Your task to perform on an android device: When is my next meeting? Image 0: 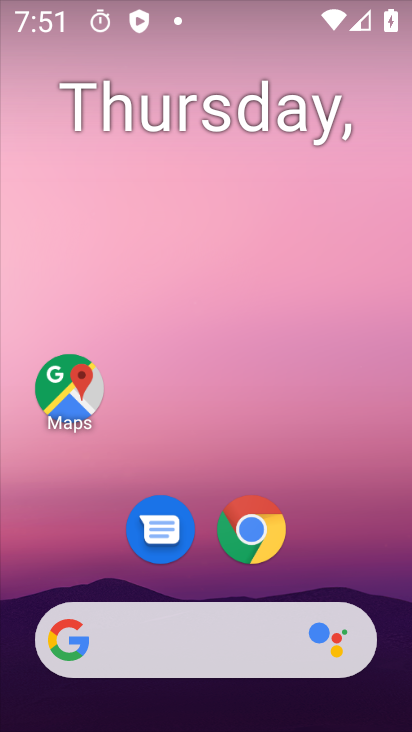
Step 0: drag from (384, 675) to (364, 39)
Your task to perform on an android device: When is my next meeting? Image 1: 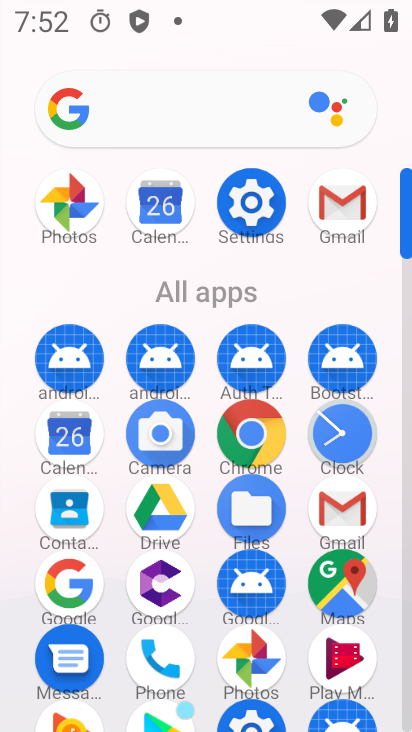
Step 1: click (62, 436)
Your task to perform on an android device: When is my next meeting? Image 2: 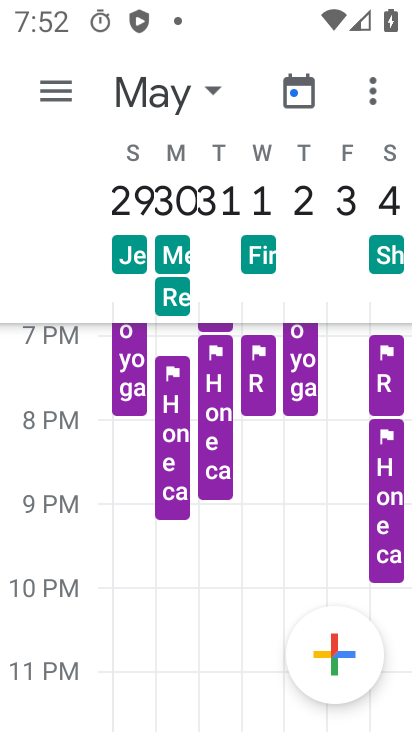
Step 2: click (44, 84)
Your task to perform on an android device: When is my next meeting? Image 3: 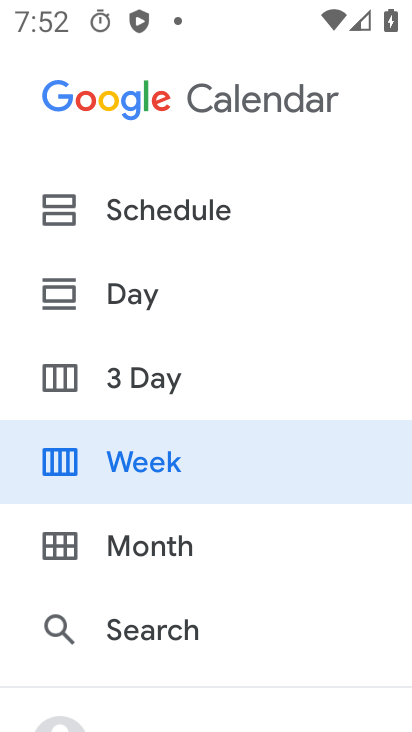
Step 3: drag from (280, 655) to (260, 327)
Your task to perform on an android device: When is my next meeting? Image 4: 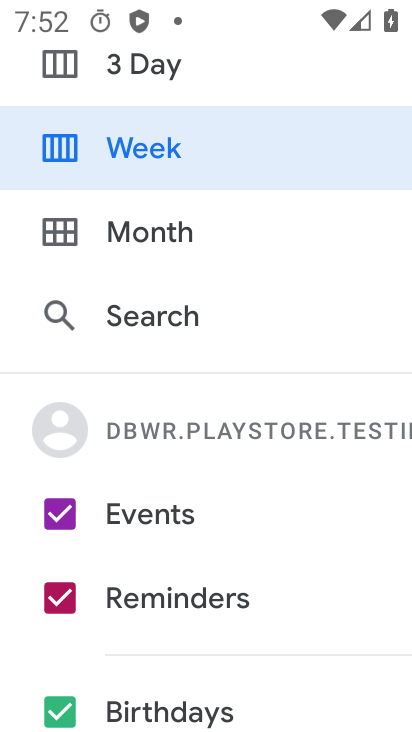
Step 4: click (61, 709)
Your task to perform on an android device: When is my next meeting? Image 5: 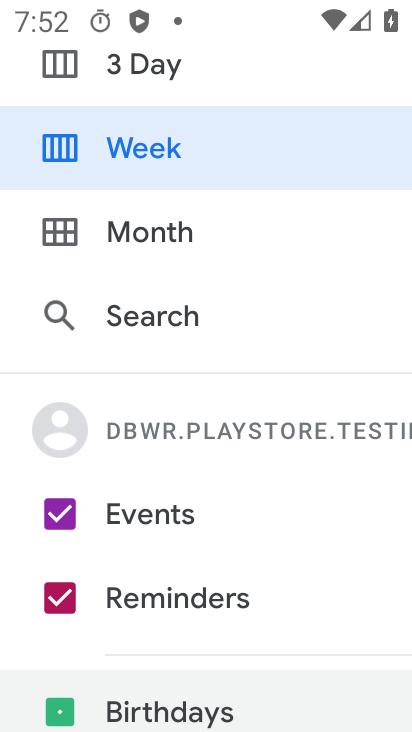
Step 5: click (57, 593)
Your task to perform on an android device: When is my next meeting? Image 6: 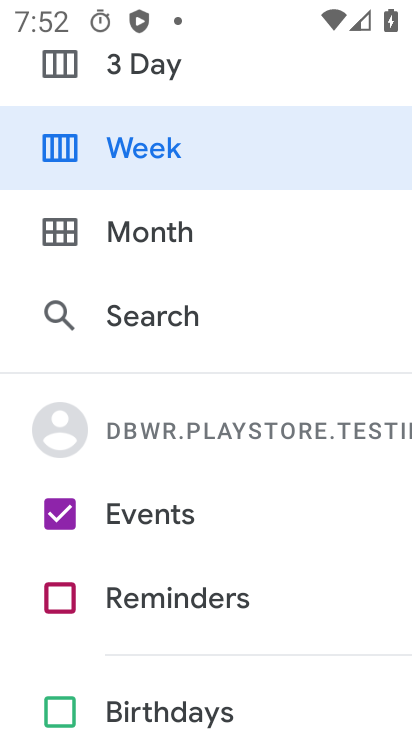
Step 6: drag from (350, 661) to (326, 405)
Your task to perform on an android device: When is my next meeting? Image 7: 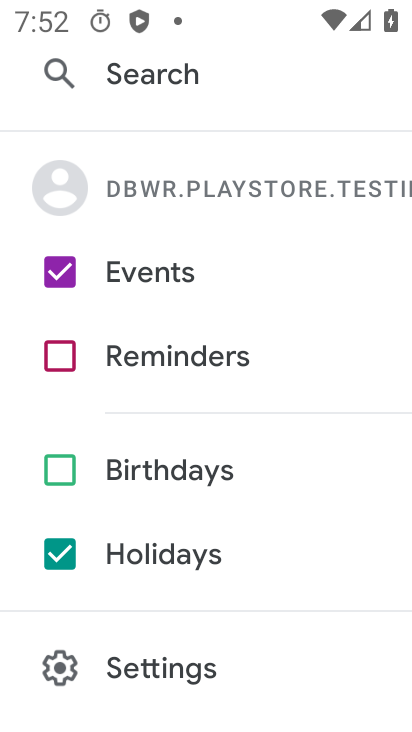
Step 7: click (63, 566)
Your task to perform on an android device: When is my next meeting? Image 8: 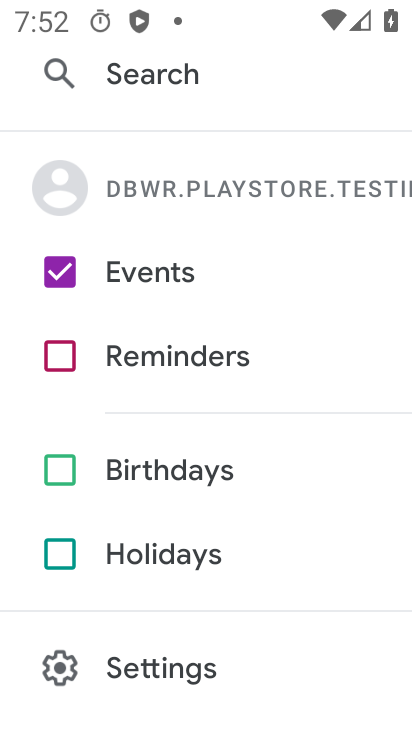
Step 8: drag from (355, 237) to (393, 663)
Your task to perform on an android device: When is my next meeting? Image 9: 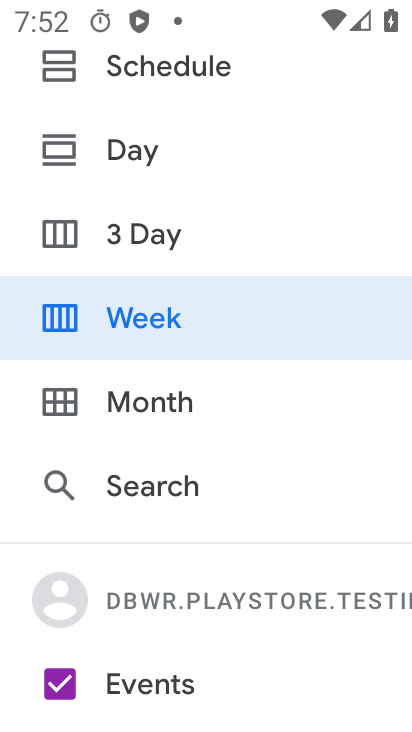
Step 9: click (170, 63)
Your task to perform on an android device: When is my next meeting? Image 10: 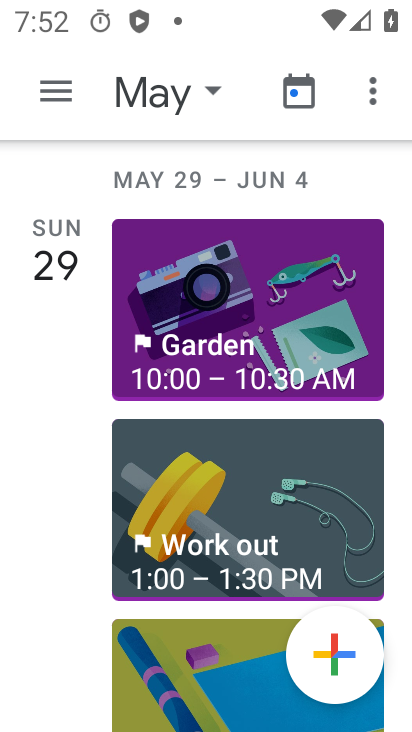
Step 10: task complete